Your task to perform on an android device: choose inbox layout in the gmail app Image 0: 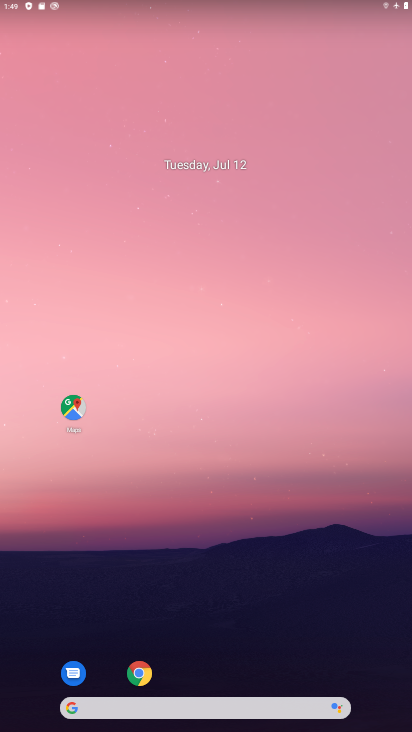
Step 0: drag from (269, 638) to (273, 247)
Your task to perform on an android device: choose inbox layout in the gmail app Image 1: 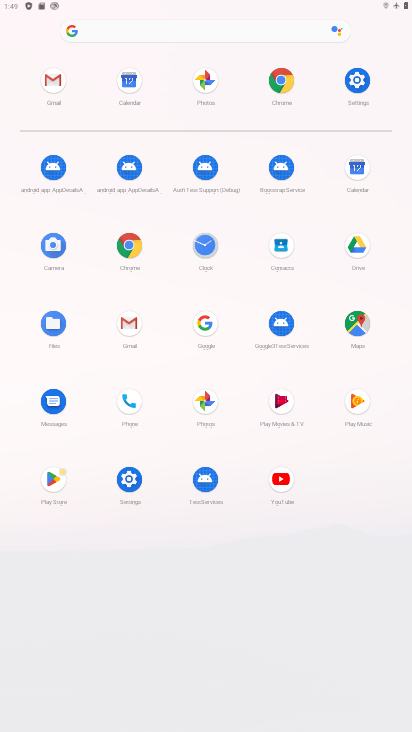
Step 1: click (123, 331)
Your task to perform on an android device: choose inbox layout in the gmail app Image 2: 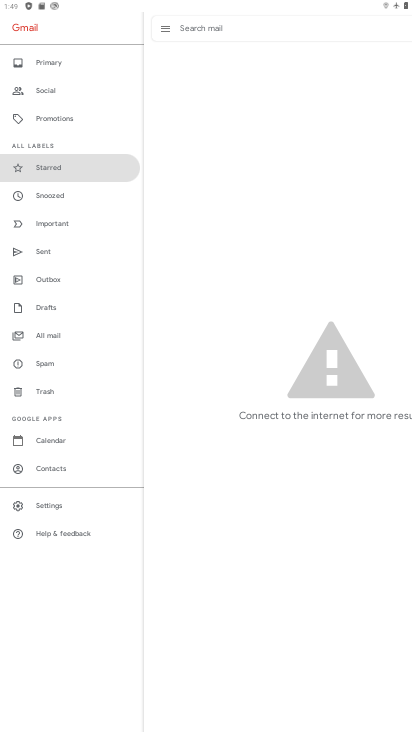
Step 2: click (49, 340)
Your task to perform on an android device: choose inbox layout in the gmail app Image 3: 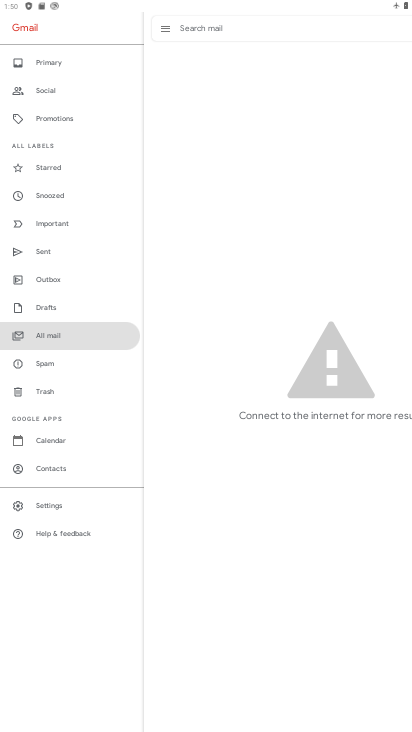
Step 3: click (62, 504)
Your task to perform on an android device: choose inbox layout in the gmail app Image 4: 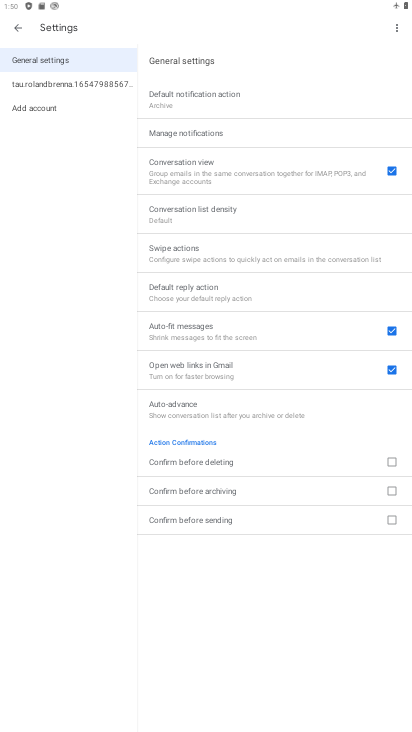
Step 4: click (52, 90)
Your task to perform on an android device: choose inbox layout in the gmail app Image 5: 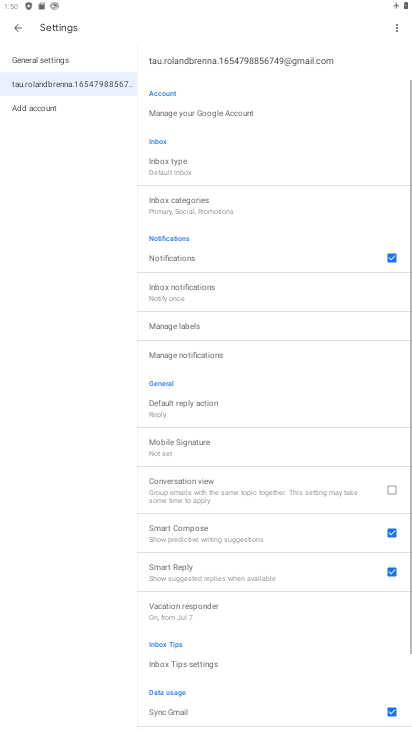
Step 5: click (208, 142)
Your task to perform on an android device: choose inbox layout in the gmail app Image 6: 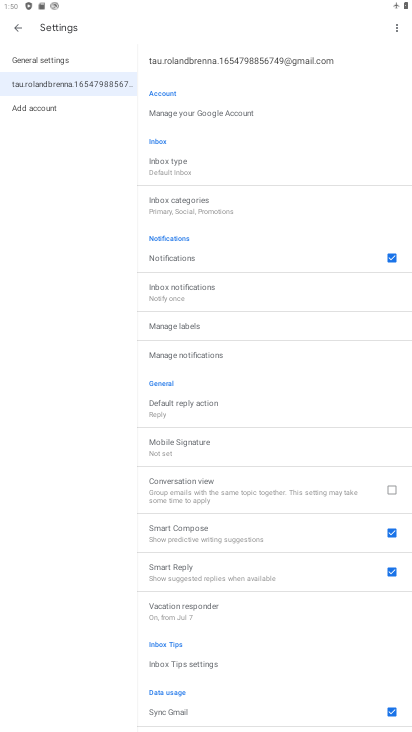
Step 6: click (188, 171)
Your task to perform on an android device: choose inbox layout in the gmail app Image 7: 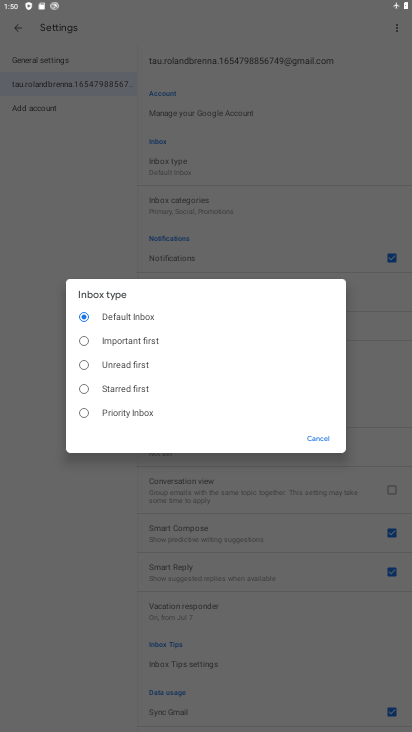
Step 7: click (115, 353)
Your task to perform on an android device: choose inbox layout in the gmail app Image 8: 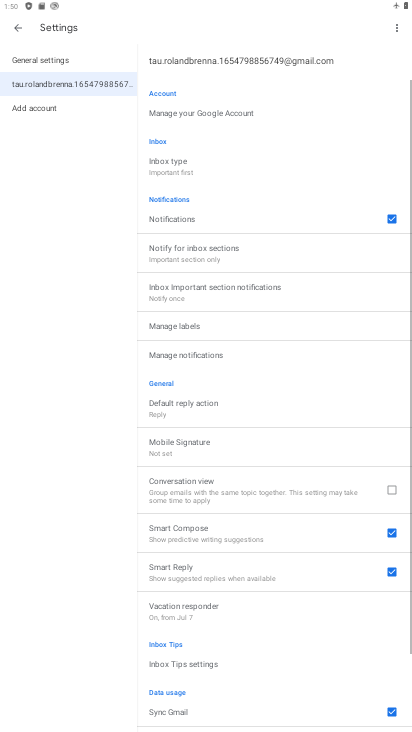
Step 8: task complete